Your task to perform on an android device: Search for amazon basics triple a on walmart, select the first entry, add it to the cart, then select checkout. Image 0: 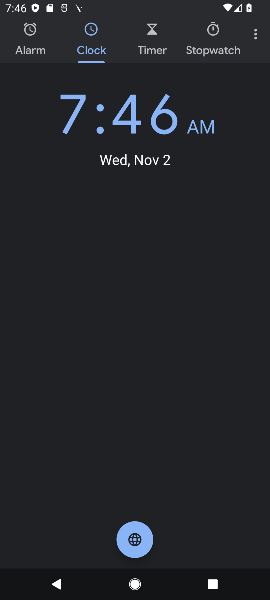
Step 0: press home button
Your task to perform on an android device: Search for amazon basics triple a on walmart, select the first entry, add it to the cart, then select checkout. Image 1: 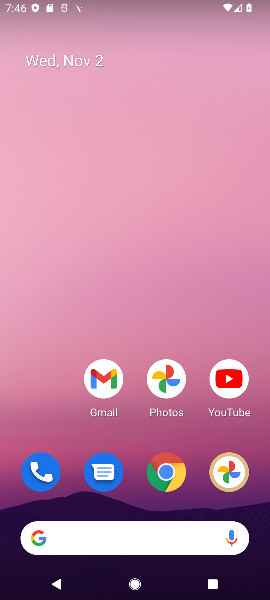
Step 1: click (166, 478)
Your task to perform on an android device: Search for amazon basics triple a on walmart, select the first entry, add it to the cart, then select checkout. Image 2: 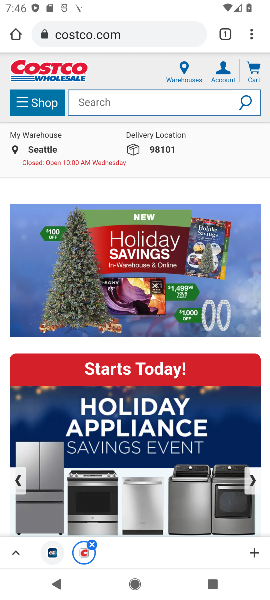
Step 2: click (127, 32)
Your task to perform on an android device: Search for amazon basics triple a on walmart, select the first entry, add it to the cart, then select checkout. Image 3: 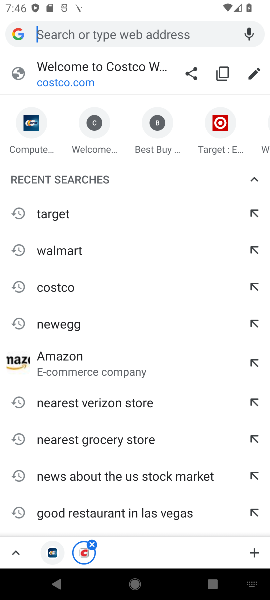
Step 3: click (55, 247)
Your task to perform on an android device: Search for amazon basics triple a on walmart, select the first entry, add it to the cart, then select checkout. Image 4: 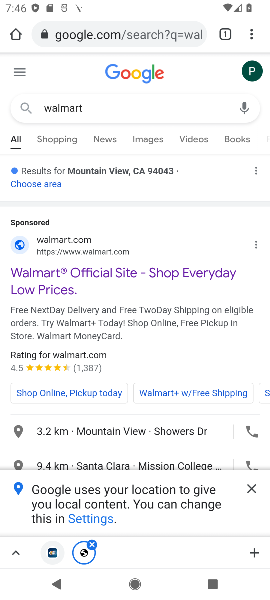
Step 4: click (58, 274)
Your task to perform on an android device: Search for amazon basics triple a on walmart, select the first entry, add it to the cart, then select checkout. Image 5: 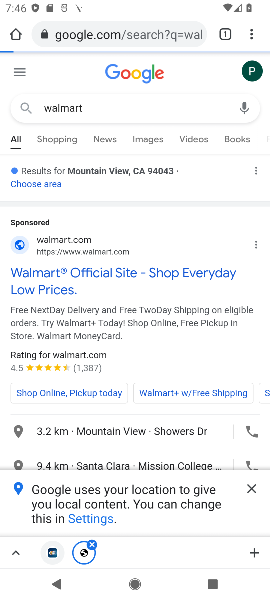
Step 5: click (58, 274)
Your task to perform on an android device: Search for amazon basics triple a on walmart, select the first entry, add it to the cart, then select checkout. Image 6: 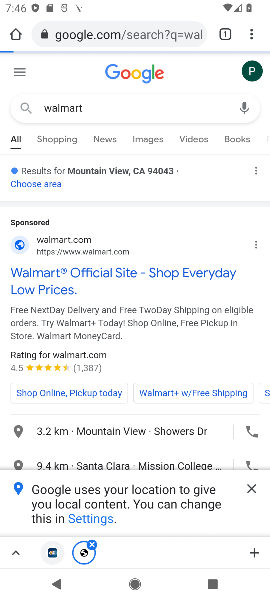
Step 6: click (75, 278)
Your task to perform on an android device: Search for amazon basics triple a on walmart, select the first entry, add it to the cart, then select checkout. Image 7: 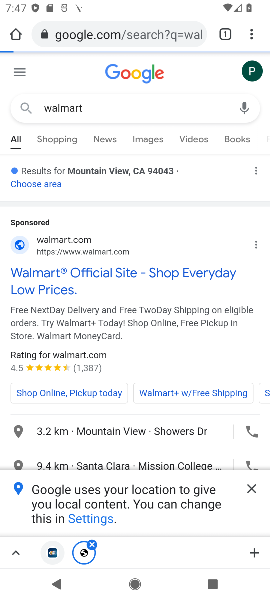
Step 7: click (63, 275)
Your task to perform on an android device: Search for amazon basics triple a on walmart, select the first entry, add it to the cart, then select checkout. Image 8: 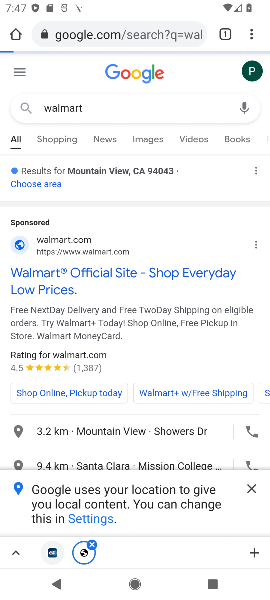
Step 8: click (105, 277)
Your task to perform on an android device: Search for amazon basics triple a on walmart, select the first entry, add it to the cart, then select checkout. Image 9: 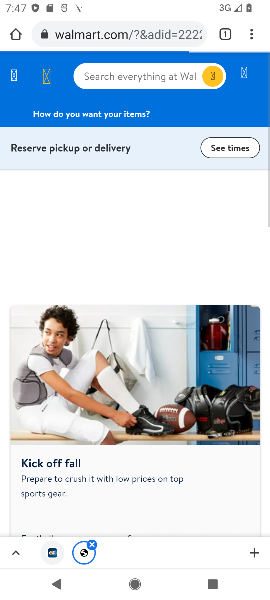
Step 9: task complete